Your task to perform on an android device: add a label to a message in the gmail app Image 0: 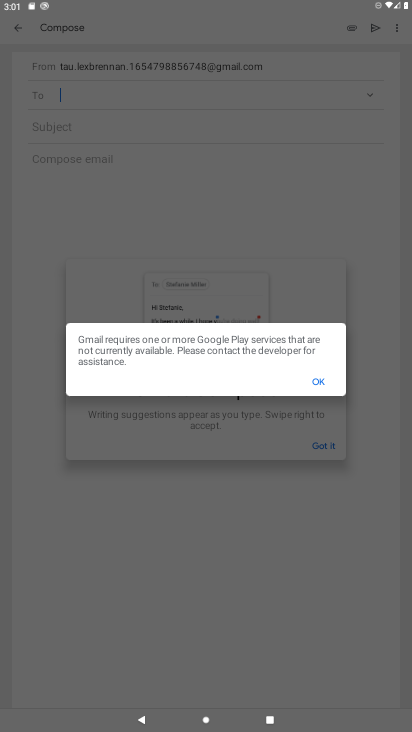
Step 0: press home button
Your task to perform on an android device: add a label to a message in the gmail app Image 1: 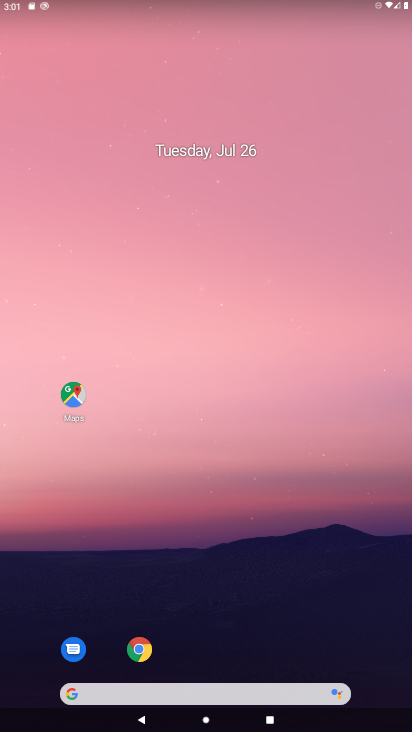
Step 1: drag from (181, 693) to (232, 212)
Your task to perform on an android device: add a label to a message in the gmail app Image 2: 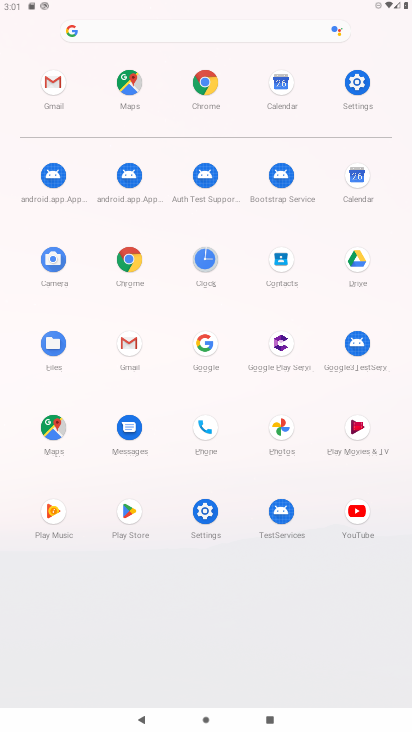
Step 2: click (123, 357)
Your task to perform on an android device: add a label to a message in the gmail app Image 3: 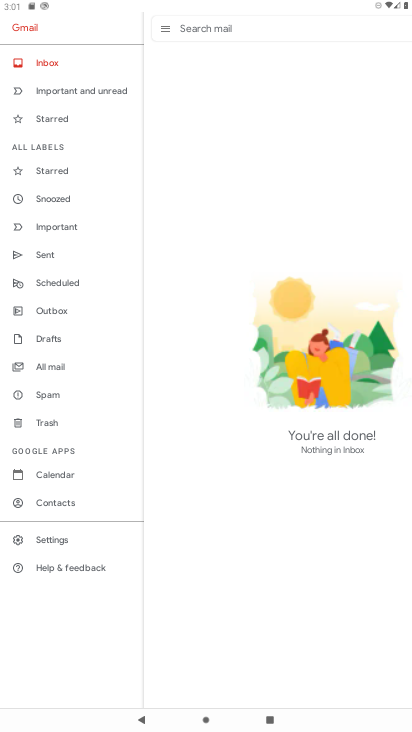
Step 3: click (64, 369)
Your task to perform on an android device: add a label to a message in the gmail app Image 4: 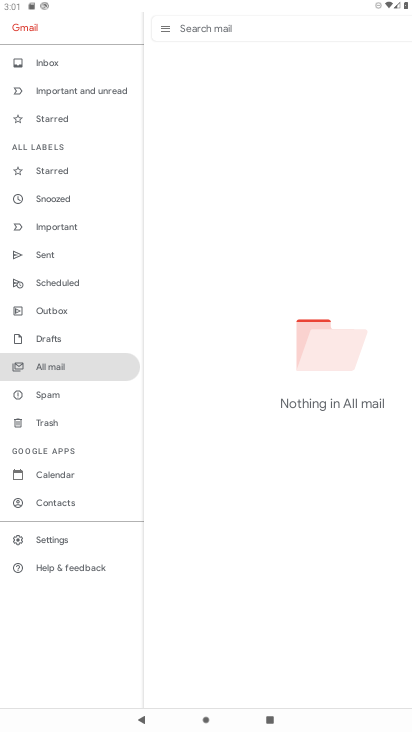
Step 4: task complete